Your task to perform on an android device: add a contact in the contacts app Image 0: 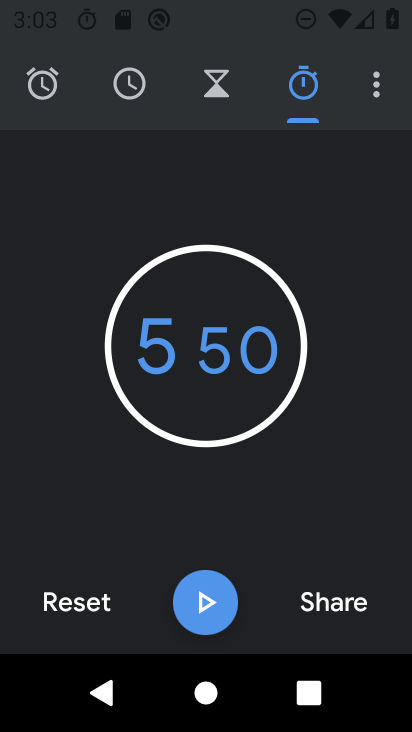
Step 0: press home button
Your task to perform on an android device: add a contact in the contacts app Image 1: 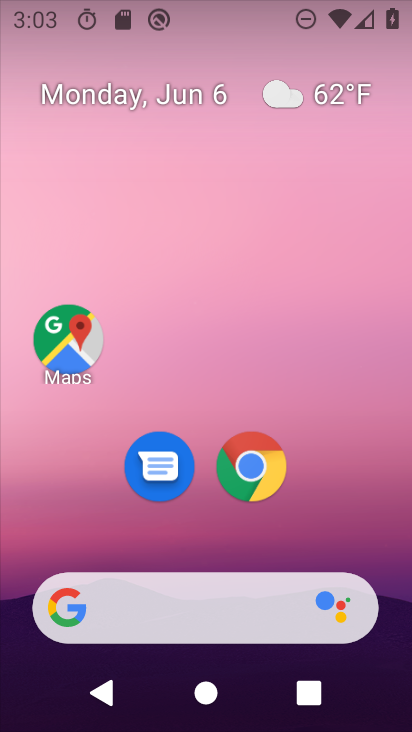
Step 1: drag from (203, 549) to (196, 72)
Your task to perform on an android device: add a contact in the contacts app Image 2: 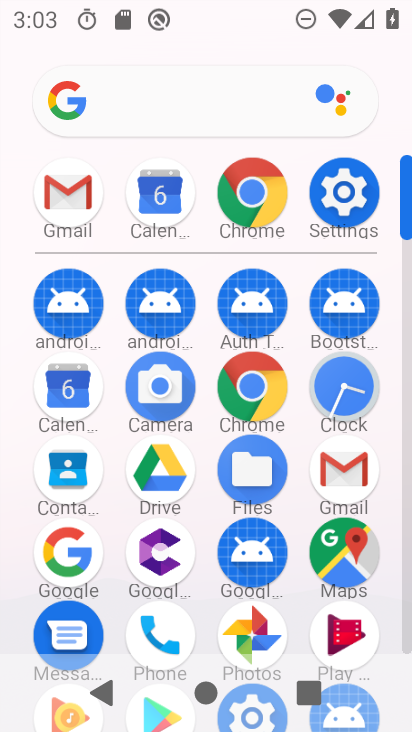
Step 2: drag from (206, 627) to (205, 459)
Your task to perform on an android device: add a contact in the contacts app Image 3: 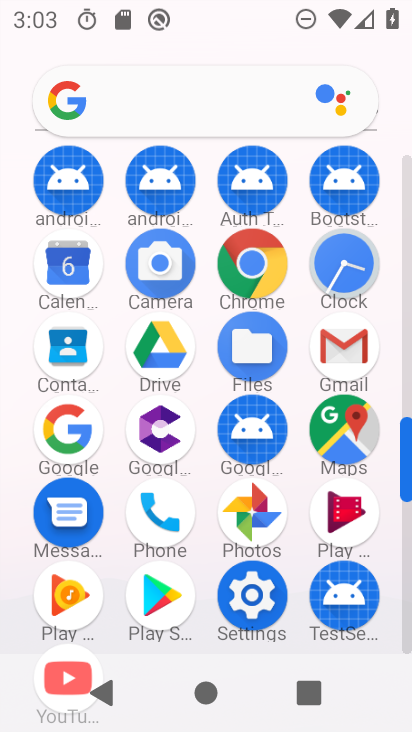
Step 3: click (60, 368)
Your task to perform on an android device: add a contact in the contacts app Image 4: 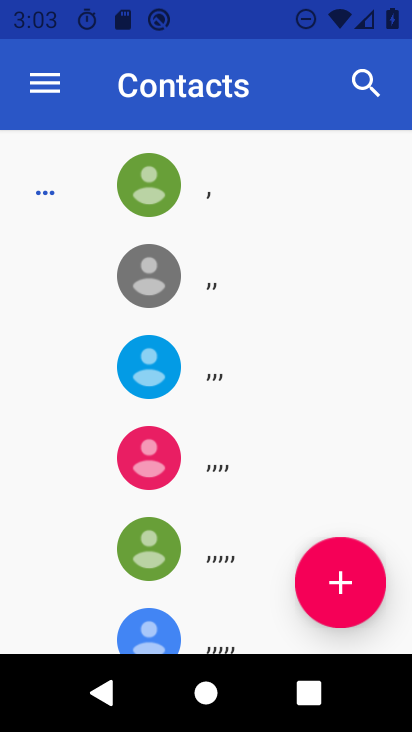
Step 4: click (338, 600)
Your task to perform on an android device: add a contact in the contacts app Image 5: 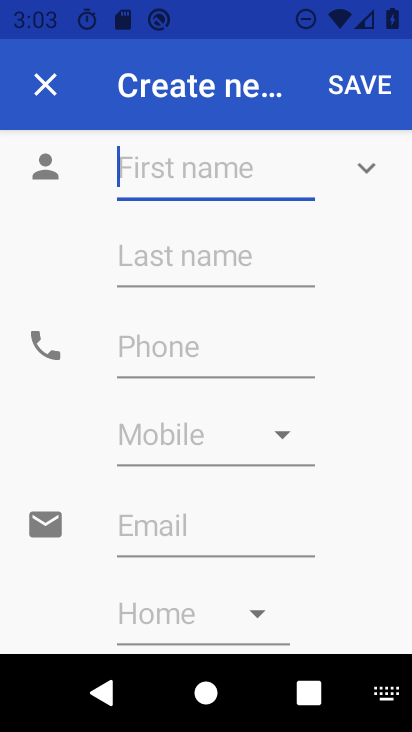
Step 5: click (188, 183)
Your task to perform on an android device: add a contact in the contacts app Image 6: 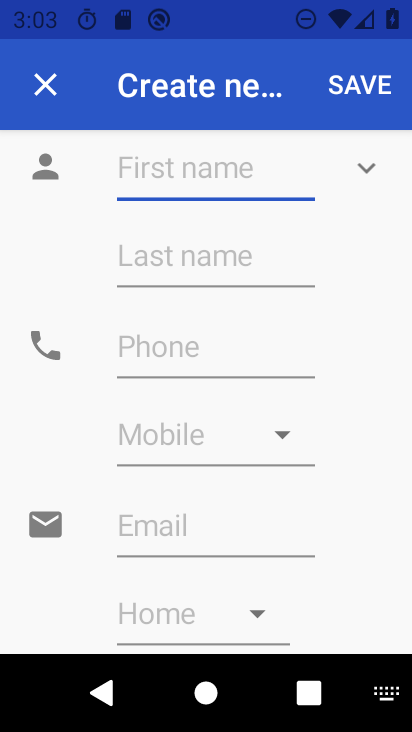
Step 6: type "nitin sharma"
Your task to perform on an android device: add a contact in the contacts app Image 7: 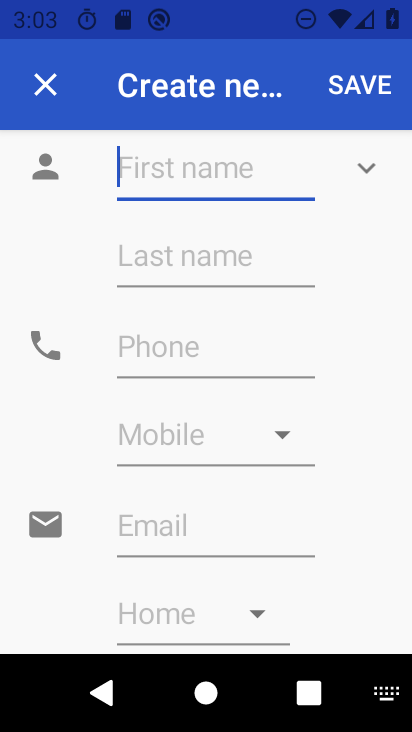
Step 7: click (176, 250)
Your task to perform on an android device: add a contact in the contacts app Image 8: 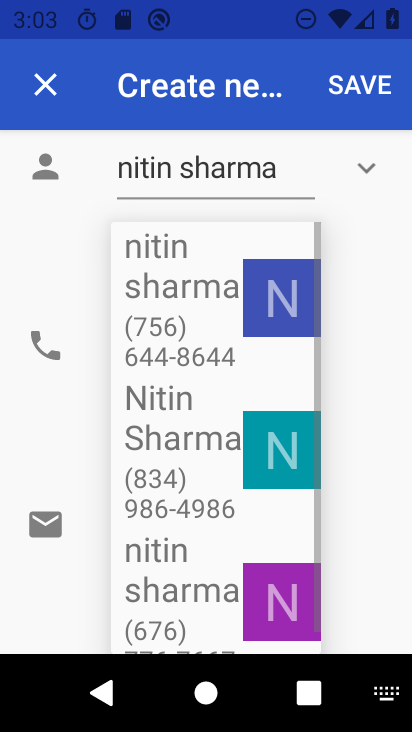
Step 8: click (152, 360)
Your task to perform on an android device: add a contact in the contacts app Image 9: 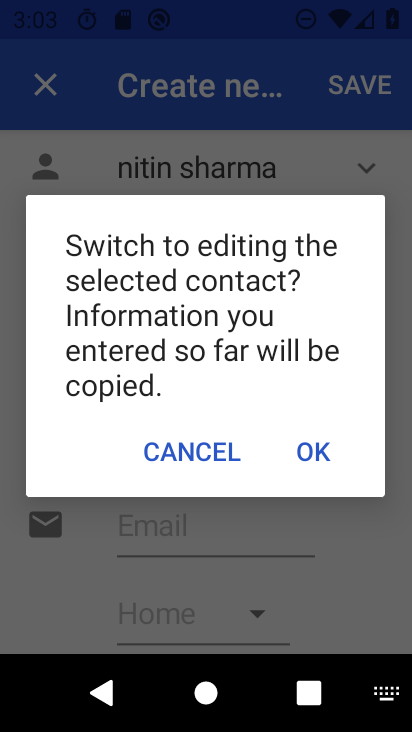
Step 9: click (293, 459)
Your task to perform on an android device: add a contact in the contacts app Image 10: 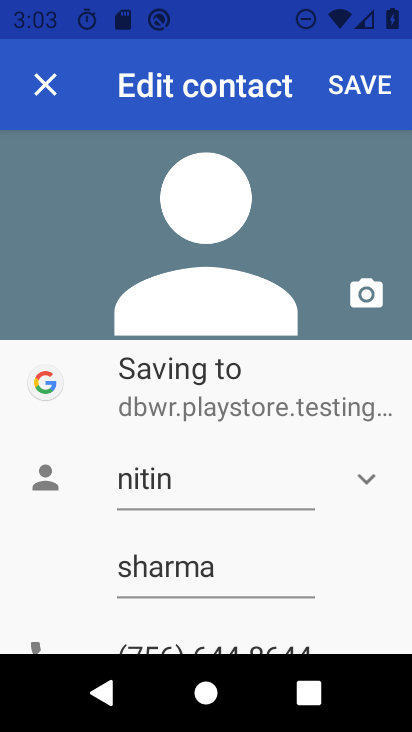
Step 10: click (379, 88)
Your task to perform on an android device: add a contact in the contacts app Image 11: 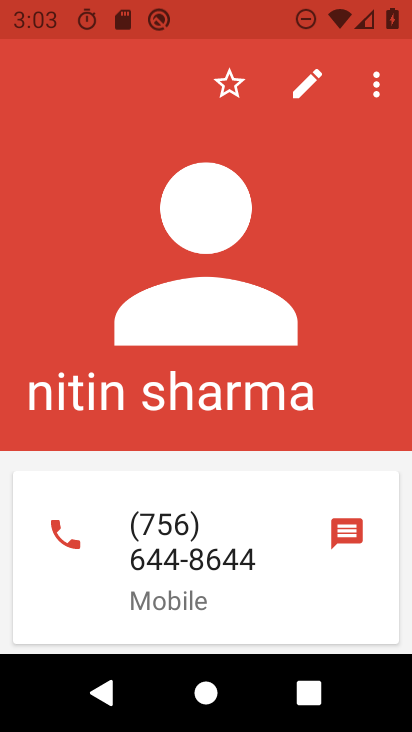
Step 11: task complete